Your task to perform on an android device: Open calendar and show me the third week of next month Image 0: 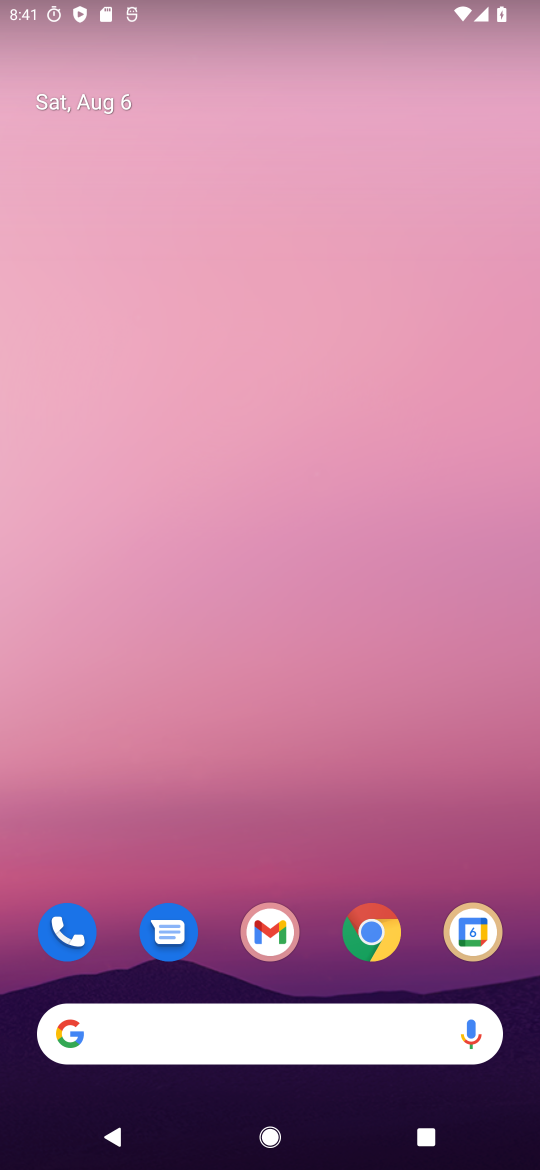
Step 0: drag from (244, 1013) to (501, 252)
Your task to perform on an android device: Open calendar and show me the third week of next month Image 1: 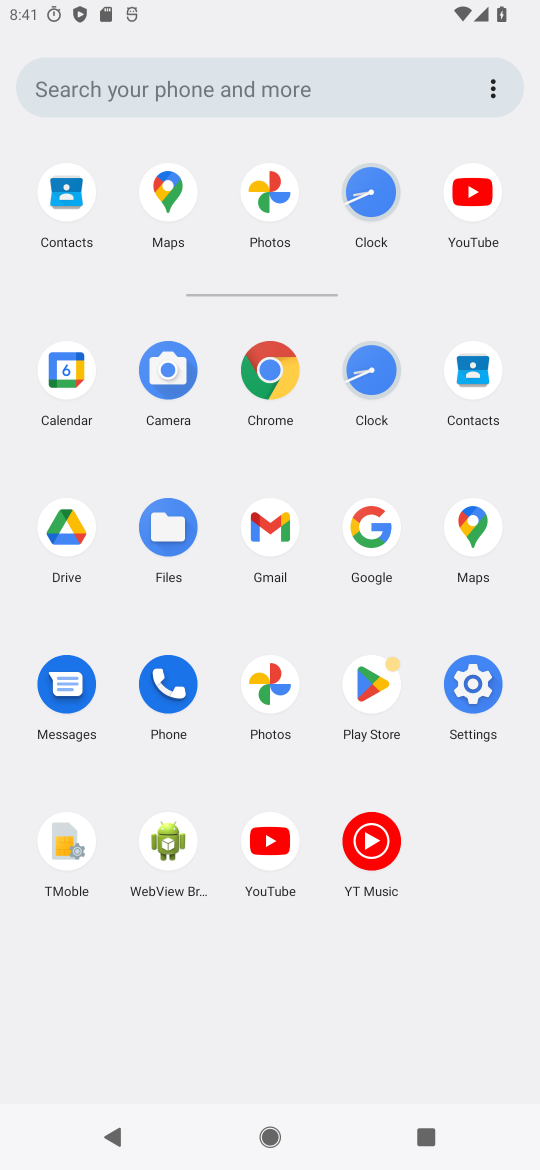
Step 1: click (64, 367)
Your task to perform on an android device: Open calendar and show me the third week of next month Image 2: 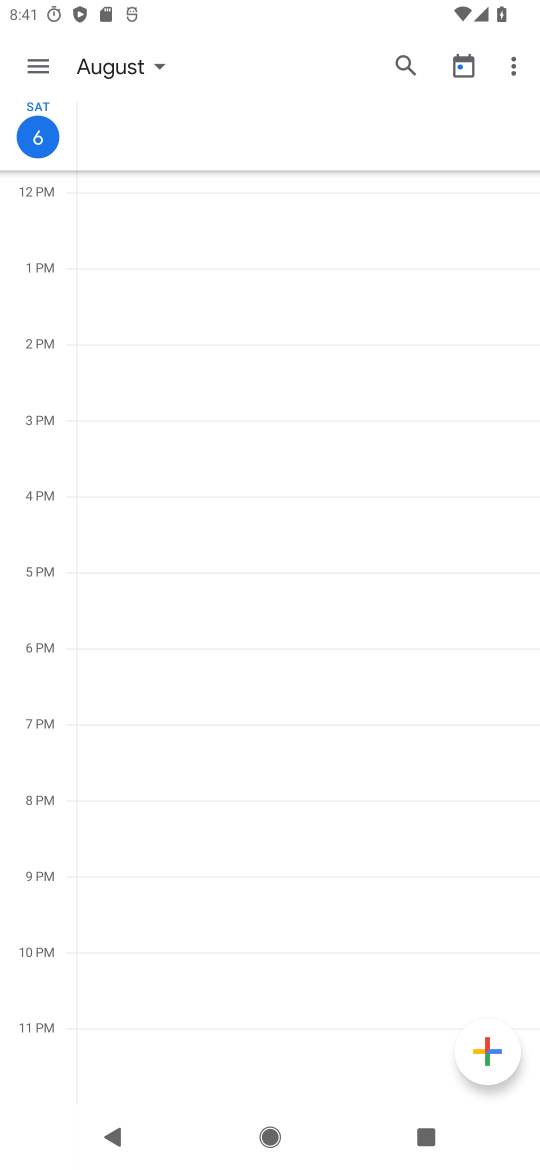
Step 2: click (101, 73)
Your task to perform on an android device: Open calendar and show me the third week of next month Image 3: 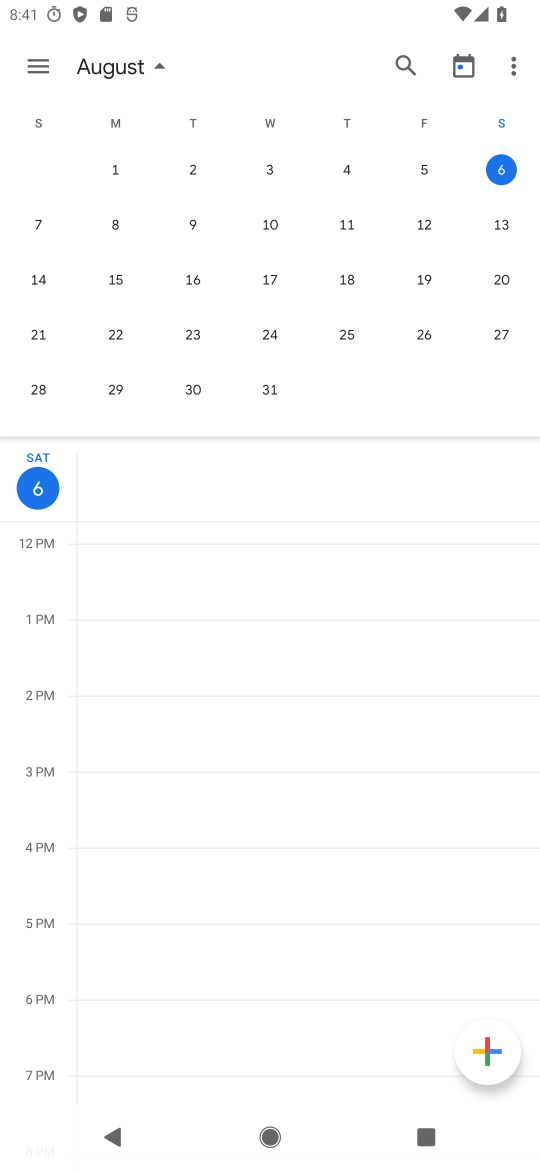
Step 3: drag from (508, 263) to (35, 392)
Your task to perform on an android device: Open calendar and show me the third week of next month Image 4: 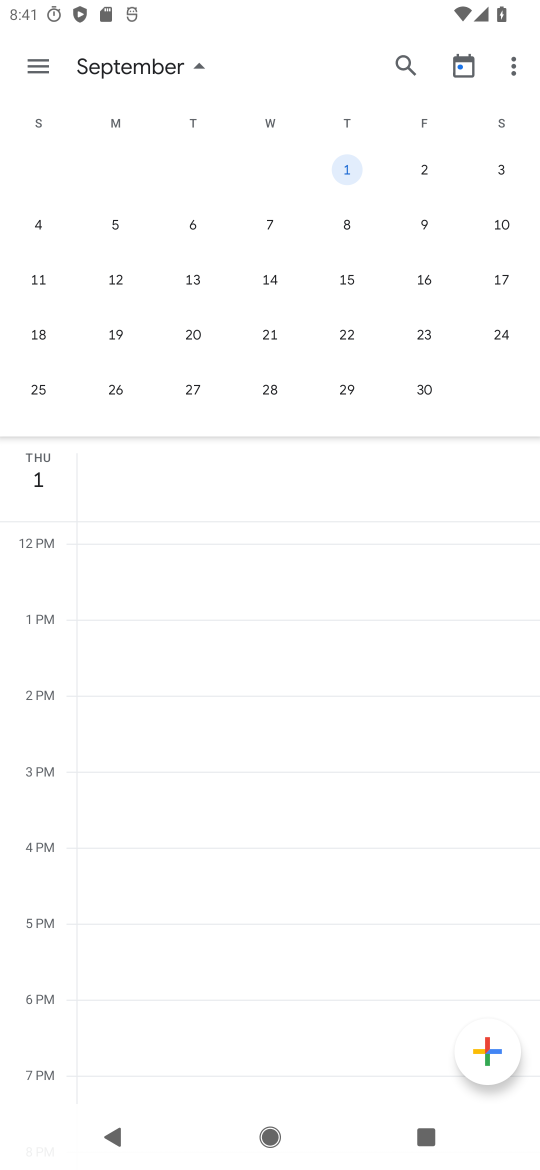
Step 4: click (43, 281)
Your task to perform on an android device: Open calendar and show me the third week of next month Image 5: 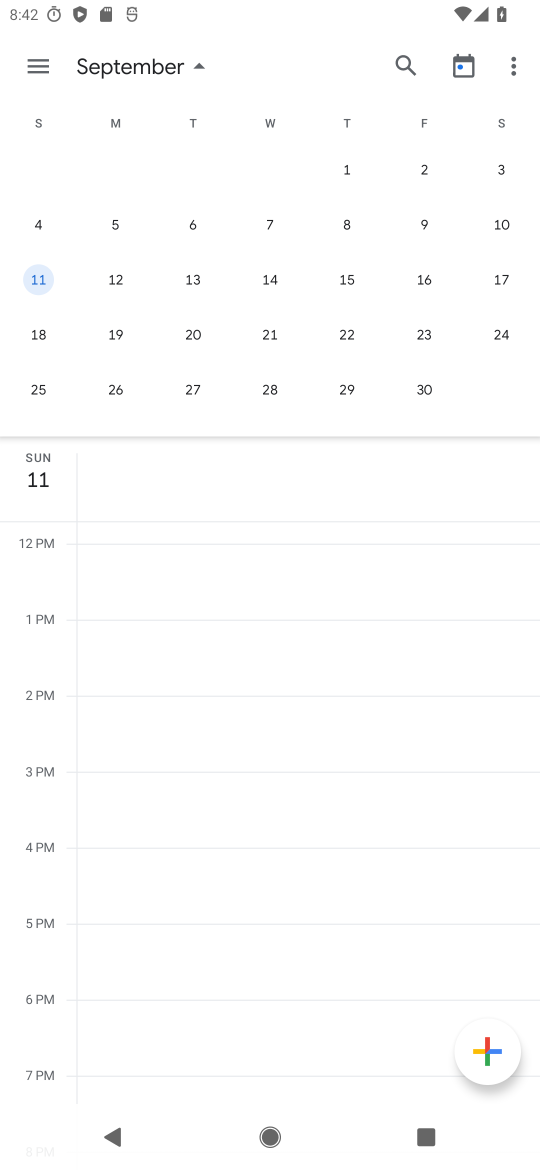
Step 5: click (35, 63)
Your task to perform on an android device: Open calendar and show me the third week of next month Image 6: 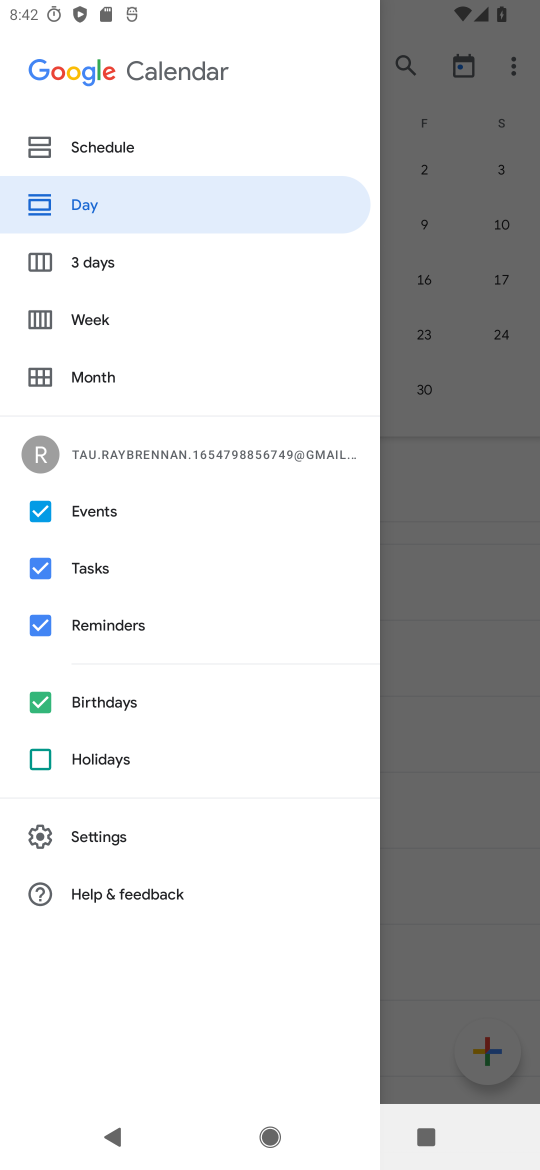
Step 6: click (105, 319)
Your task to perform on an android device: Open calendar and show me the third week of next month Image 7: 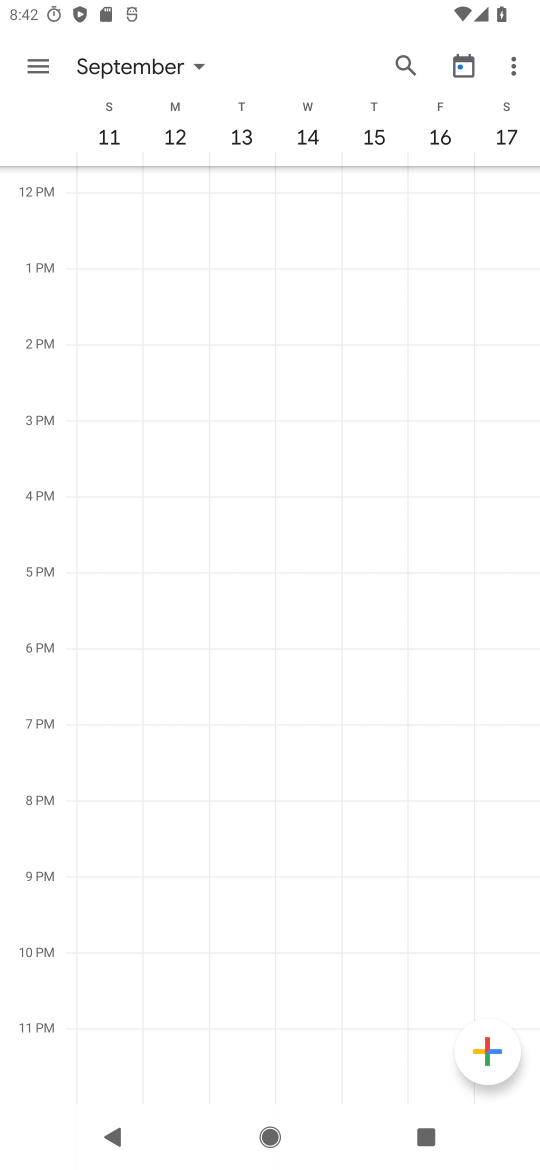
Step 7: task complete